Your task to perform on an android device: change text size in settings app Image 0: 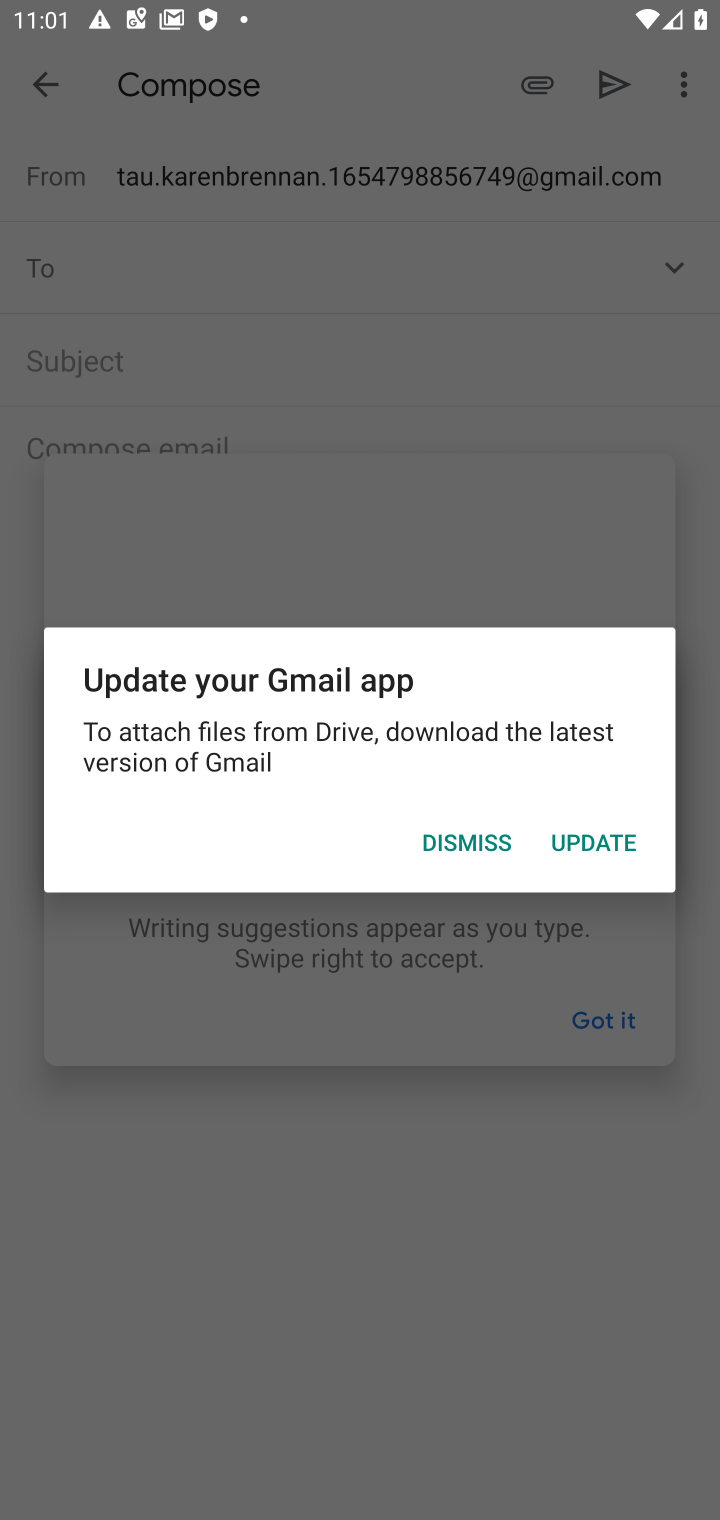
Step 0: press home button
Your task to perform on an android device: change text size in settings app Image 1: 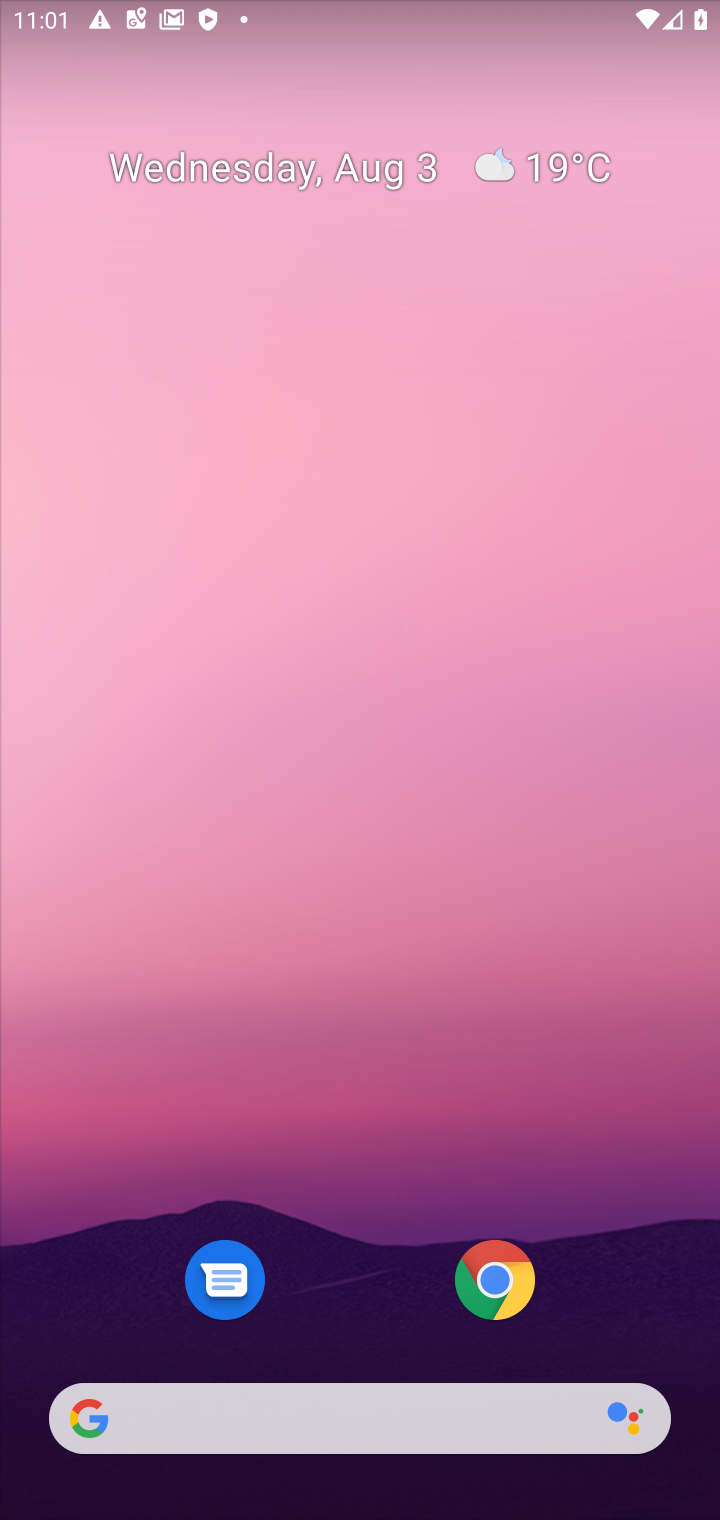
Step 1: drag from (361, 1135) to (267, 327)
Your task to perform on an android device: change text size in settings app Image 2: 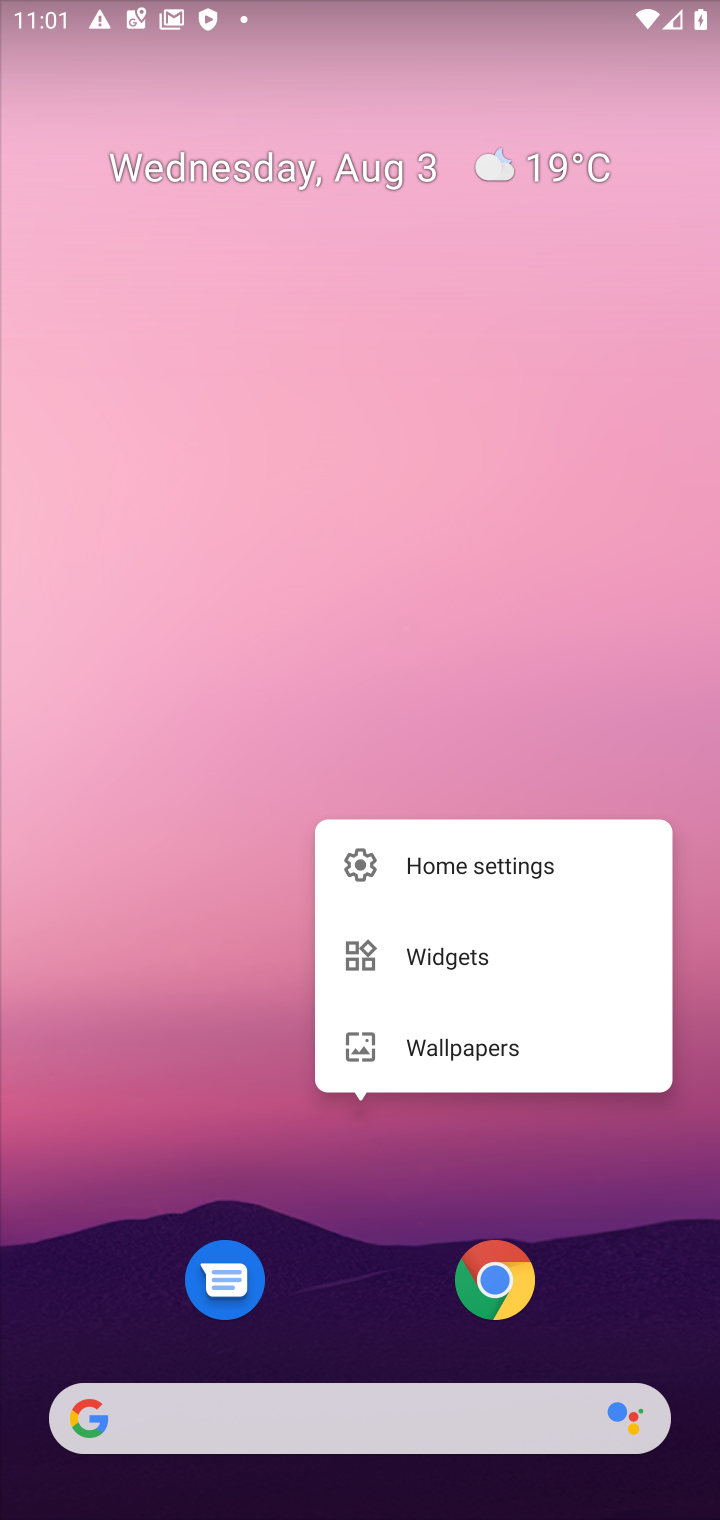
Step 2: click (246, 1119)
Your task to perform on an android device: change text size in settings app Image 3: 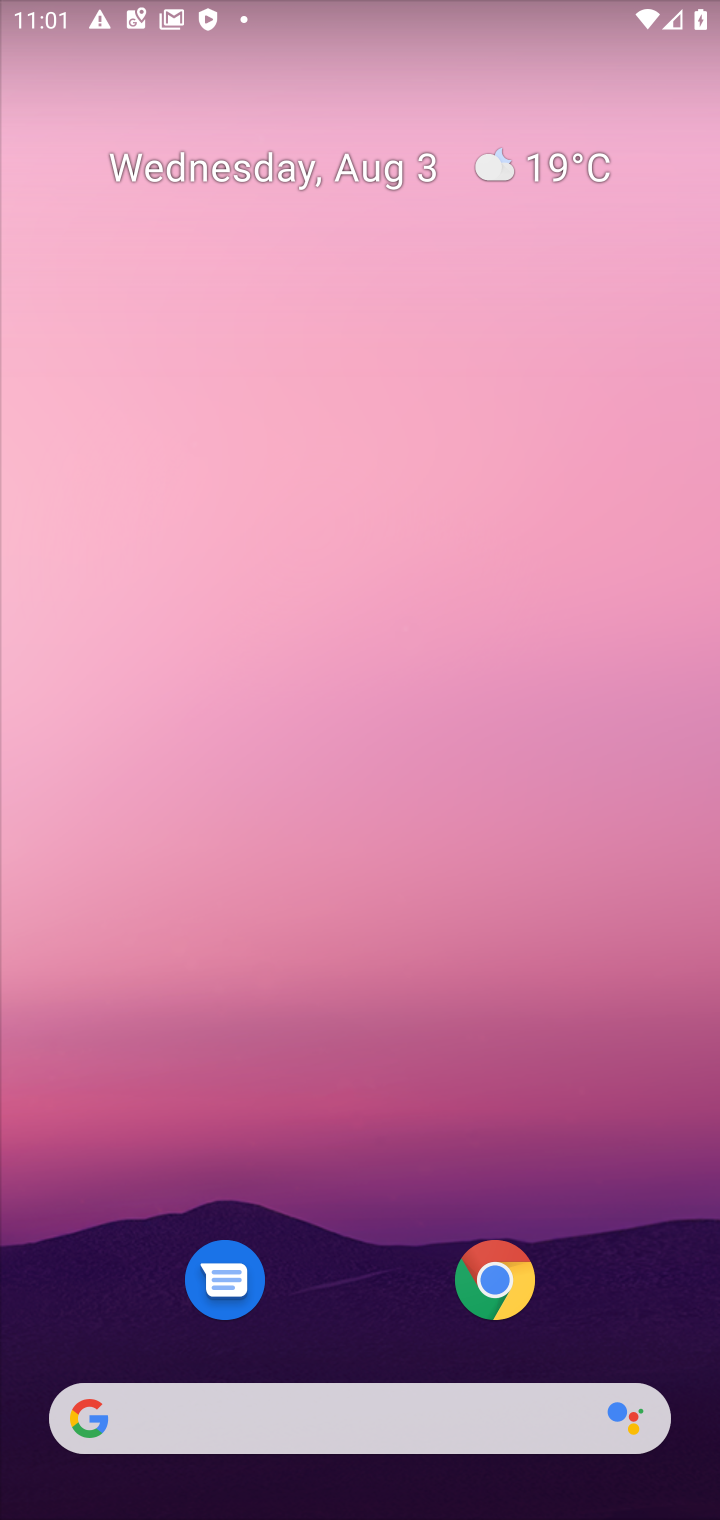
Step 3: drag from (400, 1171) to (396, 411)
Your task to perform on an android device: change text size in settings app Image 4: 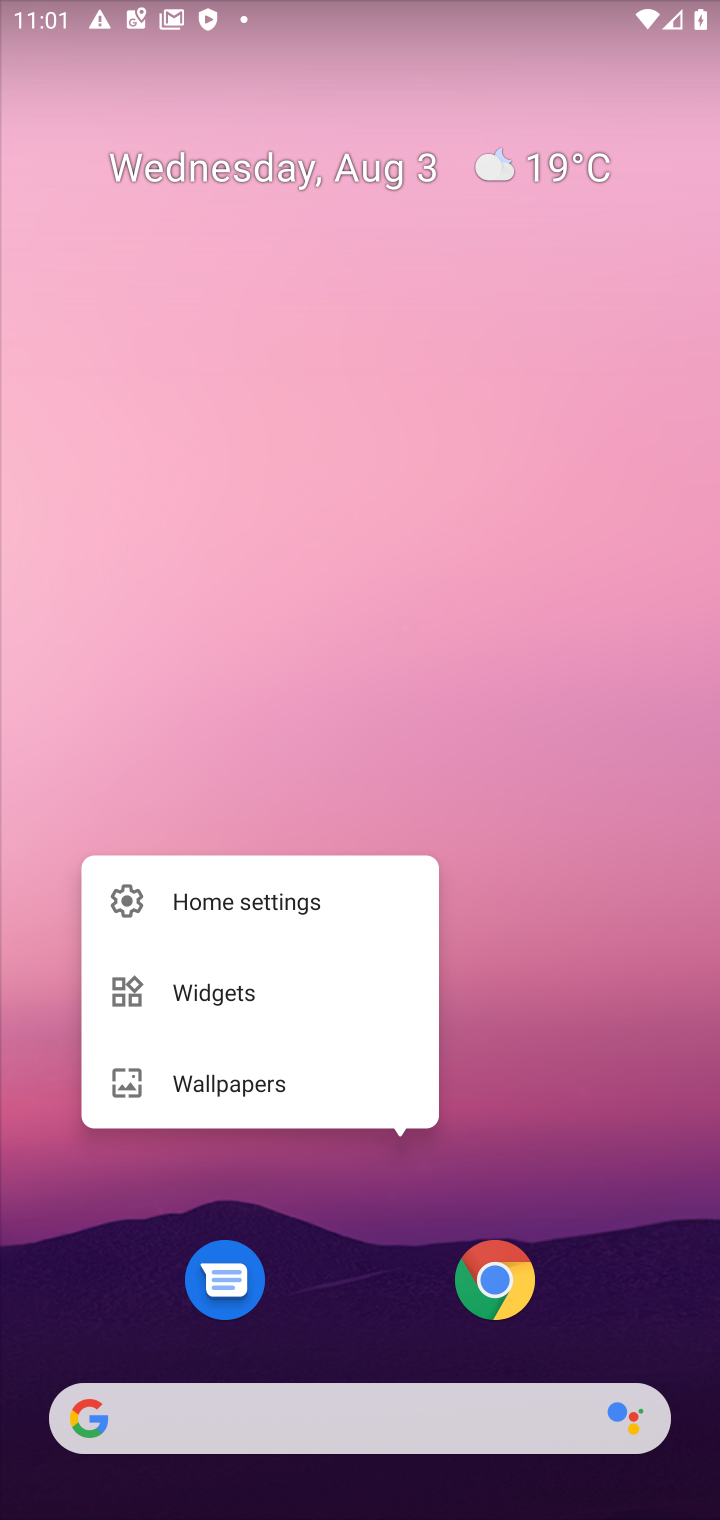
Step 4: click (494, 961)
Your task to perform on an android device: change text size in settings app Image 5: 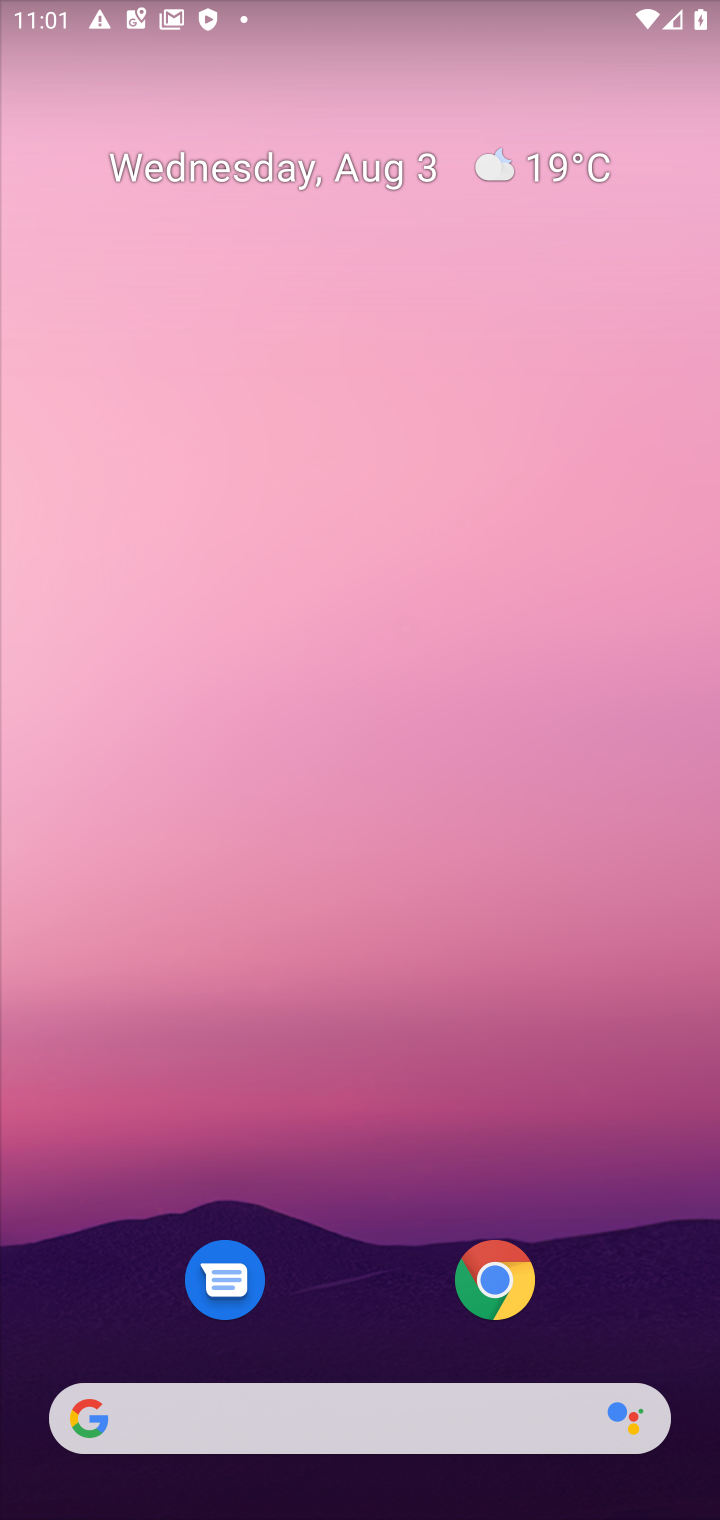
Step 5: drag from (376, 1245) to (395, 333)
Your task to perform on an android device: change text size in settings app Image 6: 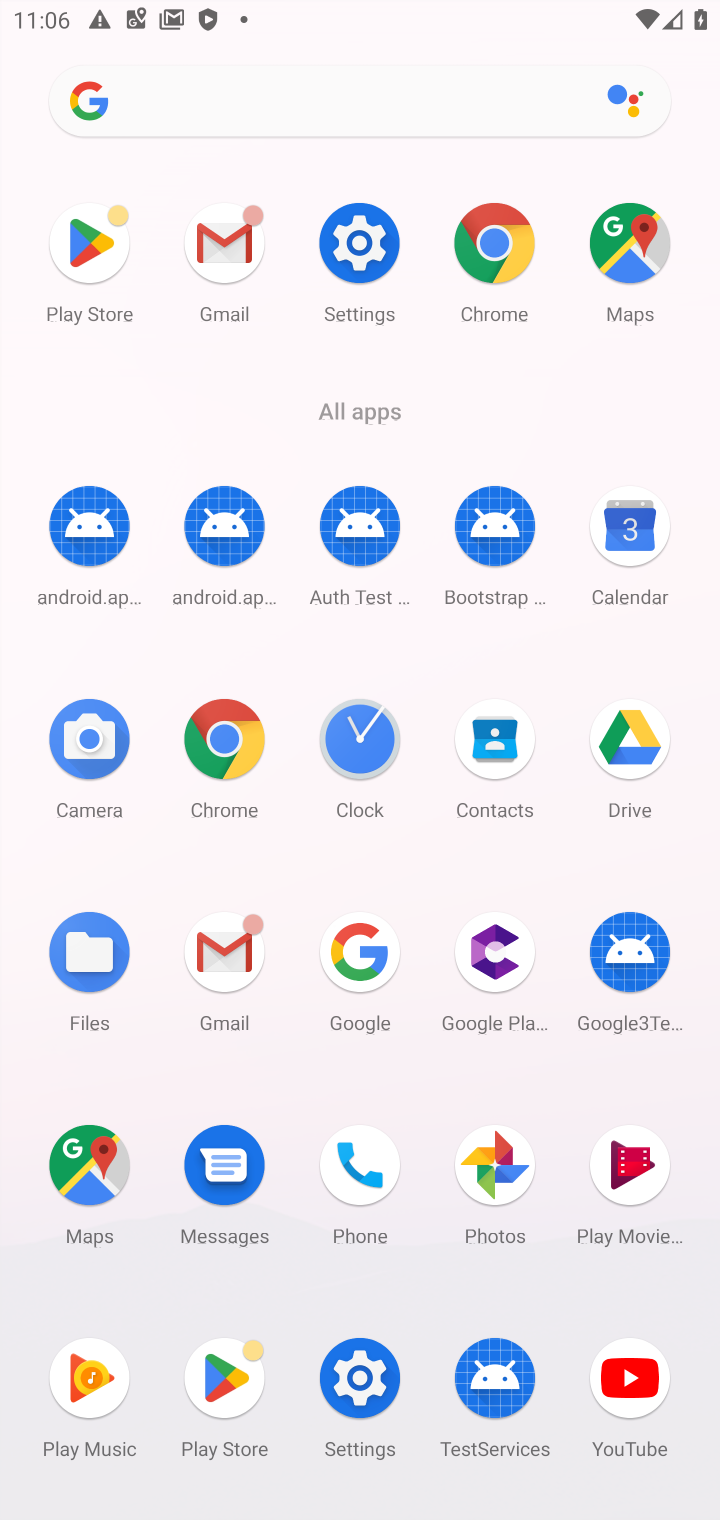
Step 6: click (338, 1389)
Your task to perform on an android device: change text size in settings app Image 7: 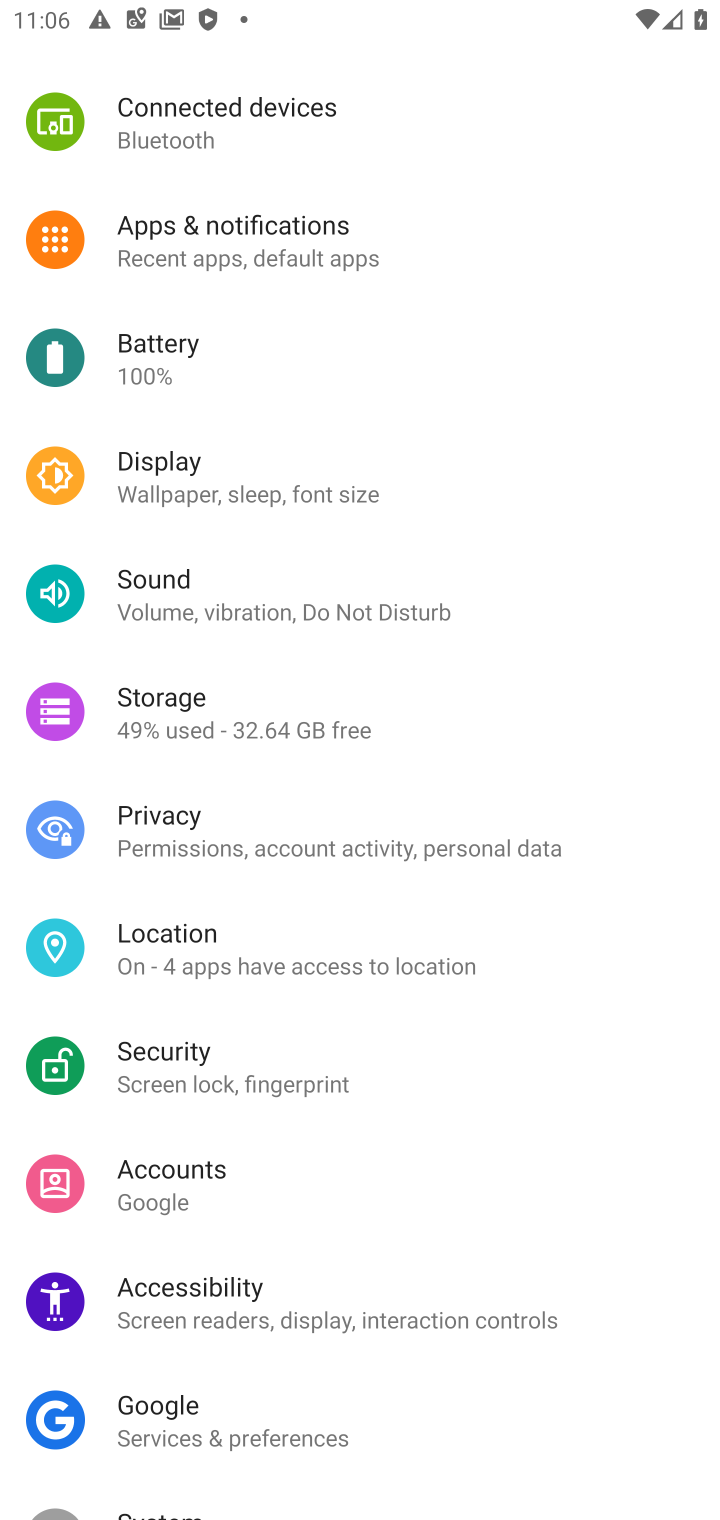
Step 7: click (245, 477)
Your task to perform on an android device: change text size in settings app Image 8: 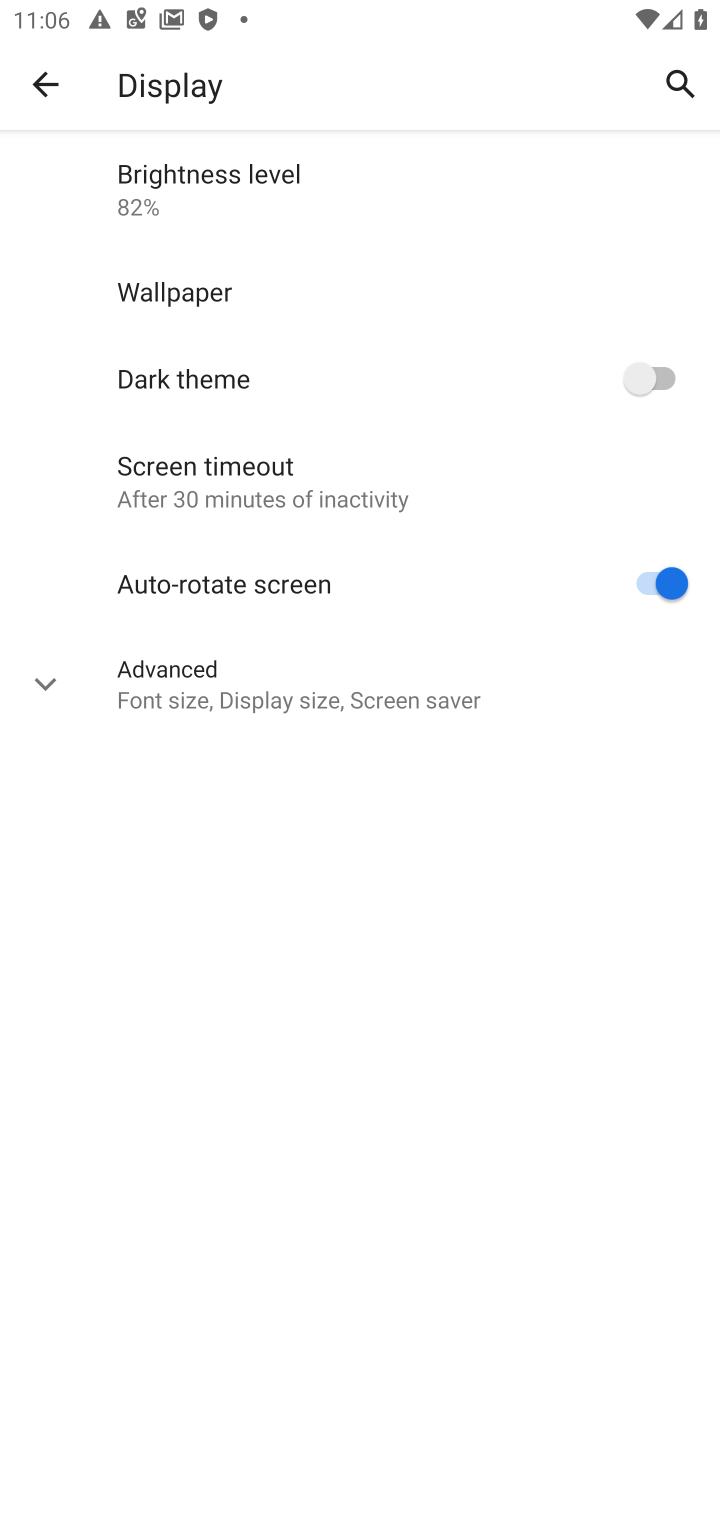
Step 8: click (243, 659)
Your task to perform on an android device: change text size in settings app Image 9: 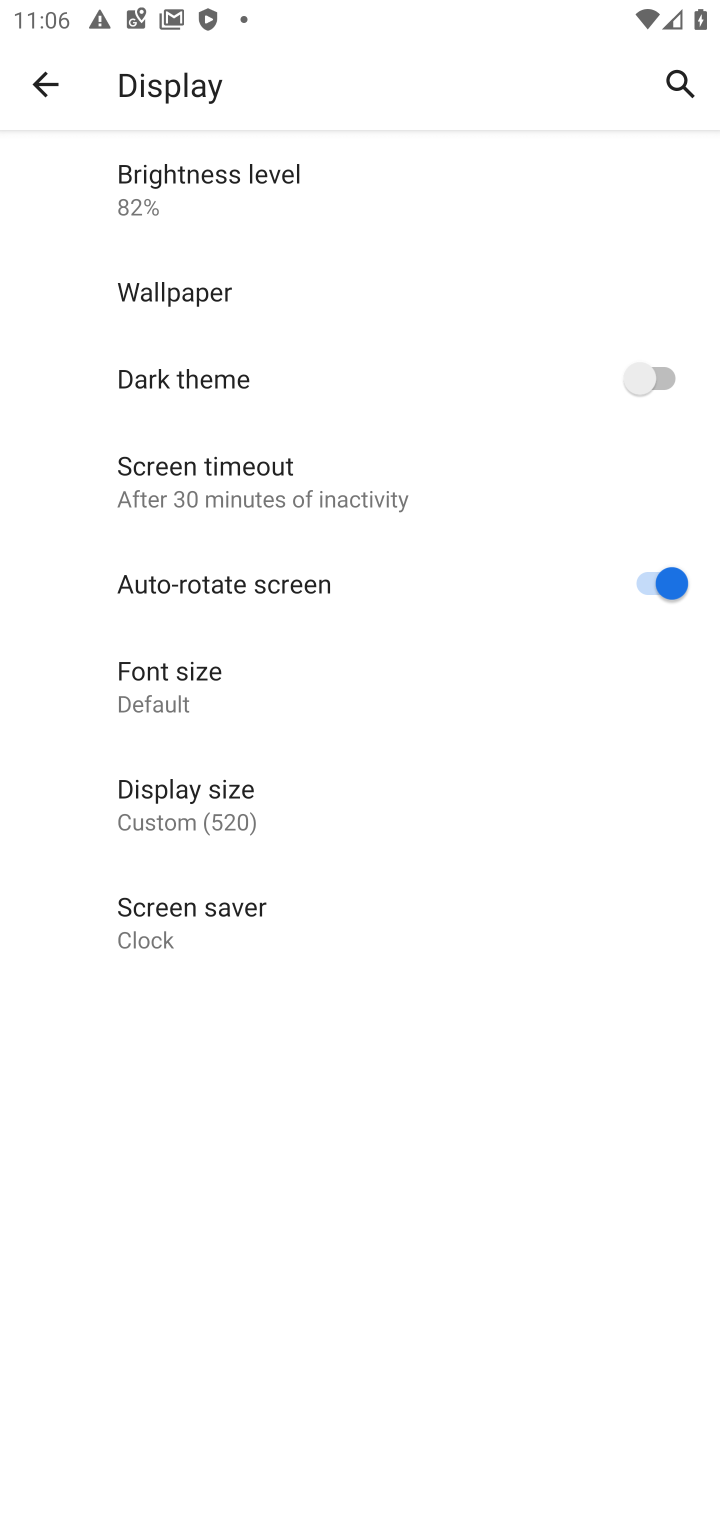
Step 9: click (177, 679)
Your task to perform on an android device: change text size in settings app Image 10: 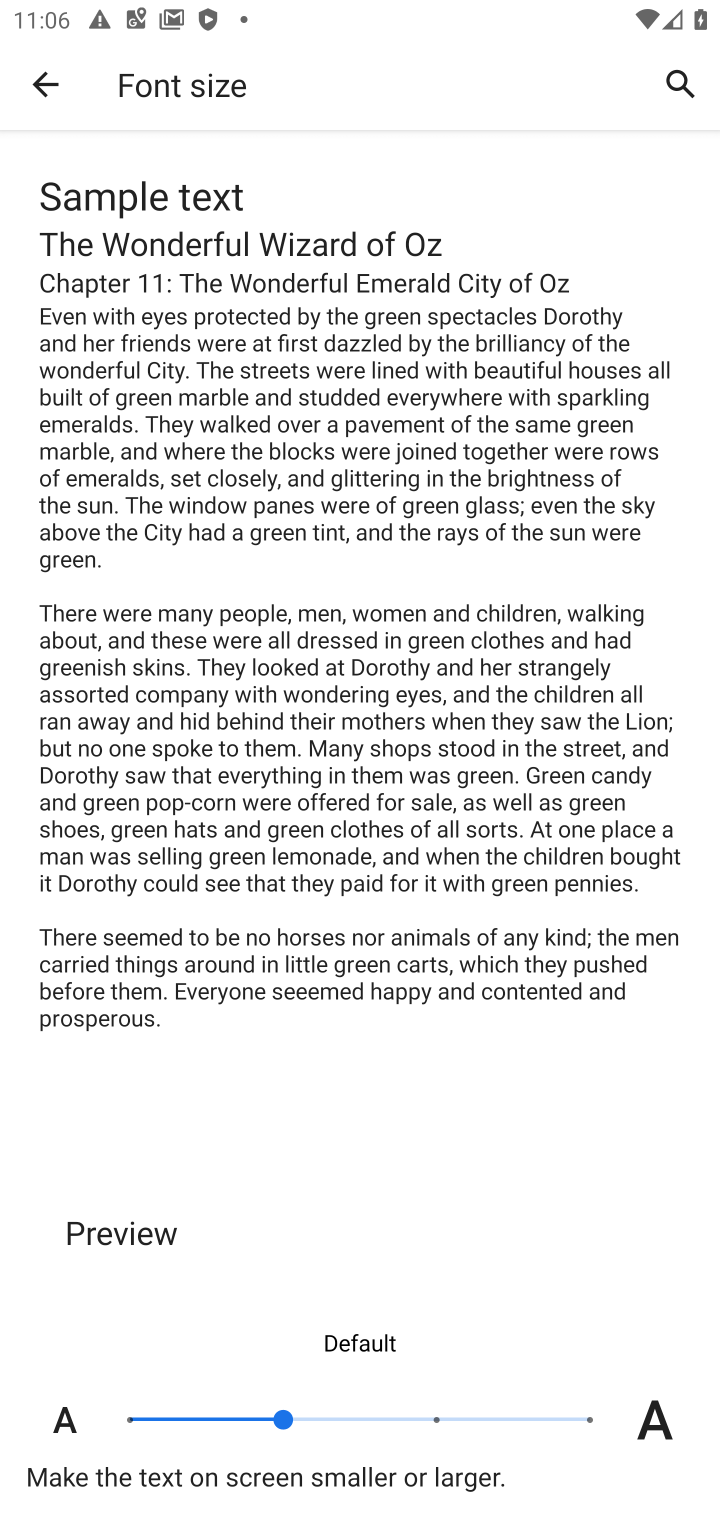
Step 10: click (319, 1424)
Your task to perform on an android device: change text size in settings app Image 11: 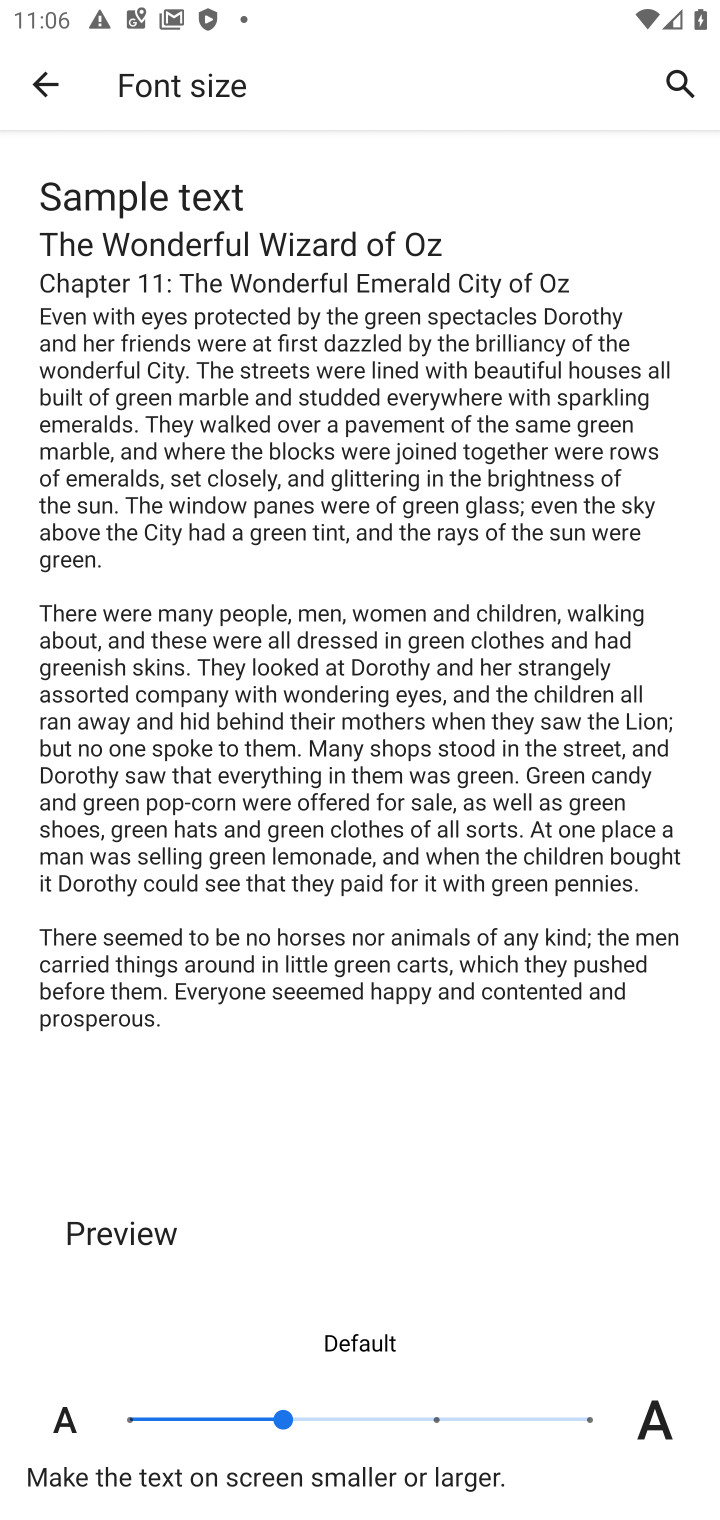
Step 11: click (313, 1415)
Your task to perform on an android device: change text size in settings app Image 12: 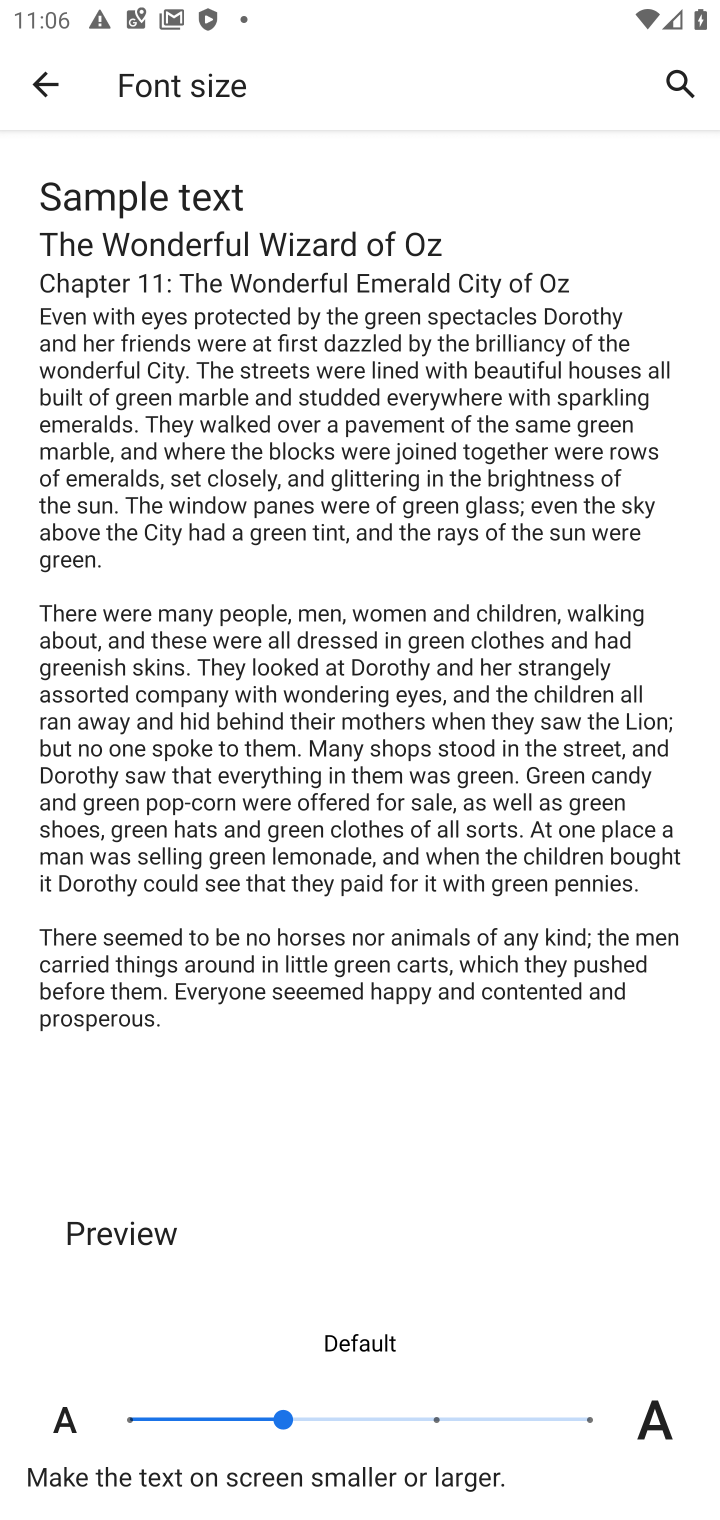
Step 12: task complete